Your task to perform on an android device: Turn on the flashlight Image 0: 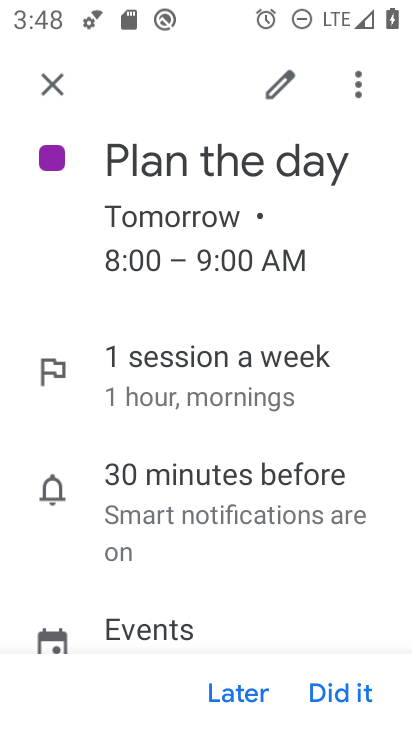
Step 0: press home button
Your task to perform on an android device: Turn on the flashlight Image 1: 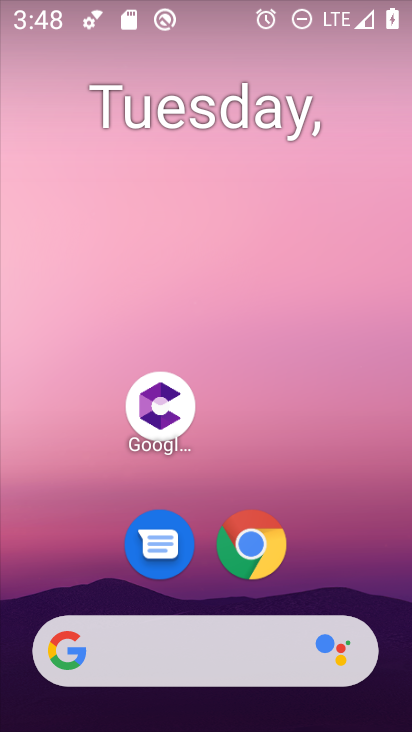
Step 1: drag from (242, 7) to (182, 384)
Your task to perform on an android device: Turn on the flashlight Image 2: 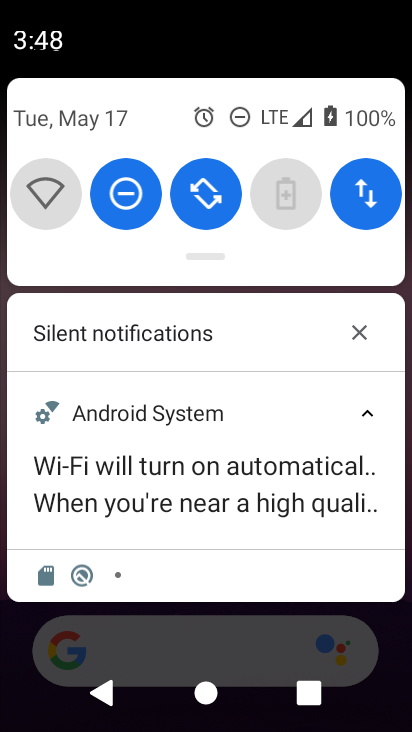
Step 2: drag from (244, 139) to (226, 396)
Your task to perform on an android device: Turn on the flashlight Image 3: 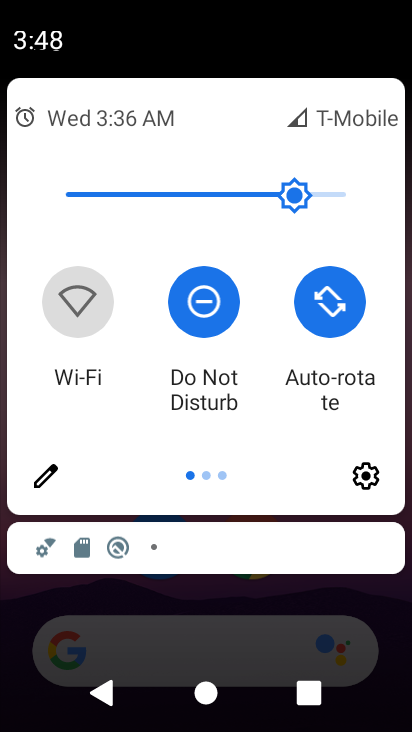
Step 3: click (49, 486)
Your task to perform on an android device: Turn on the flashlight Image 4: 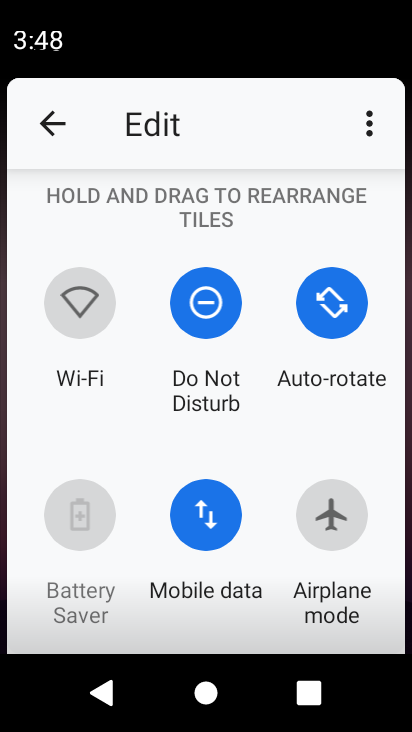
Step 4: task complete